Your task to perform on an android device: Add "acer nitro" to the cart on target Image 0: 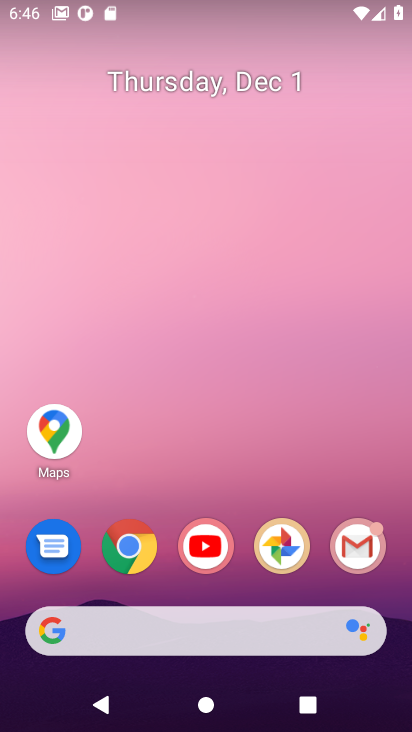
Step 0: click (137, 551)
Your task to perform on an android device: Add "acer nitro" to the cart on target Image 1: 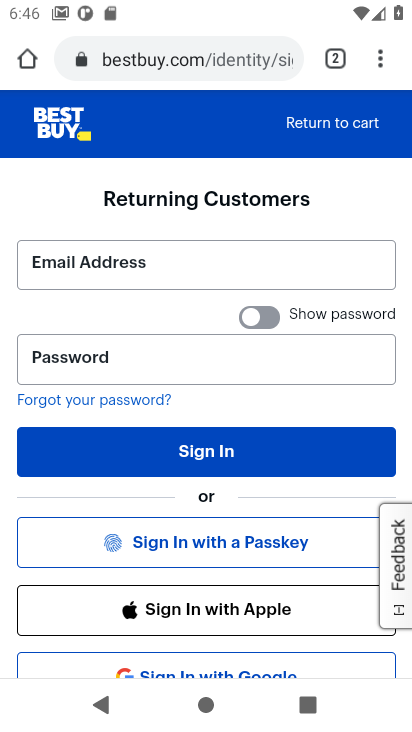
Step 1: click (194, 75)
Your task to perform on an android device: Add "acer nitro" to the cart on target Image 2: 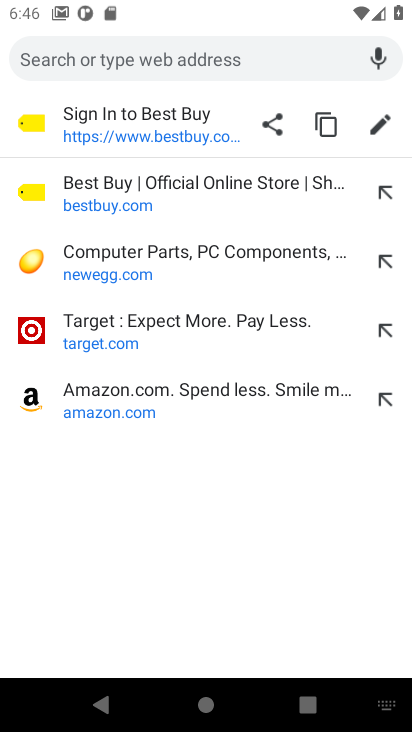
Step 2: click (88, 324)
Your task to perform on an android device: Add "acer nitro" to the cart on target Image 3: 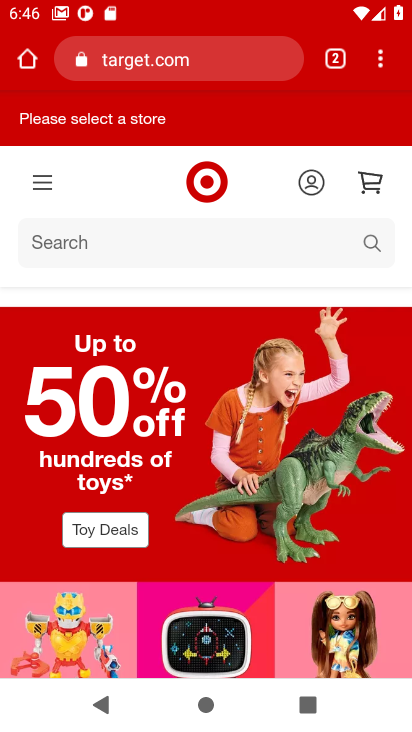
Step 3: click (51, 242)
Your task to perform on an android device: Add "acer nitro" to the cart on target Image 4: 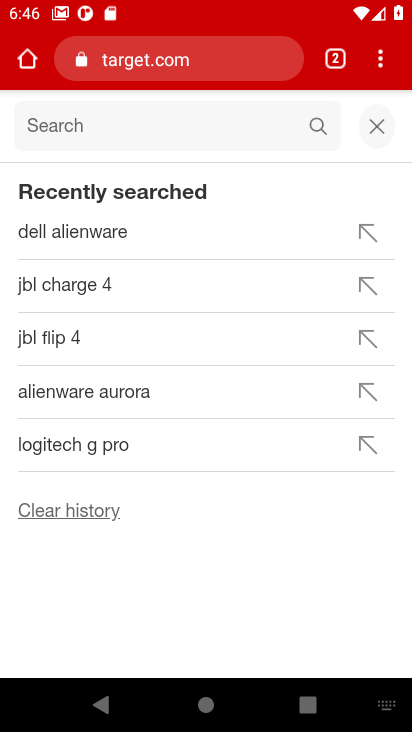
Step 4: type "acer nitro"
Your task to perform on an android device: Add "acer nitro" to the cart on target Image 5: 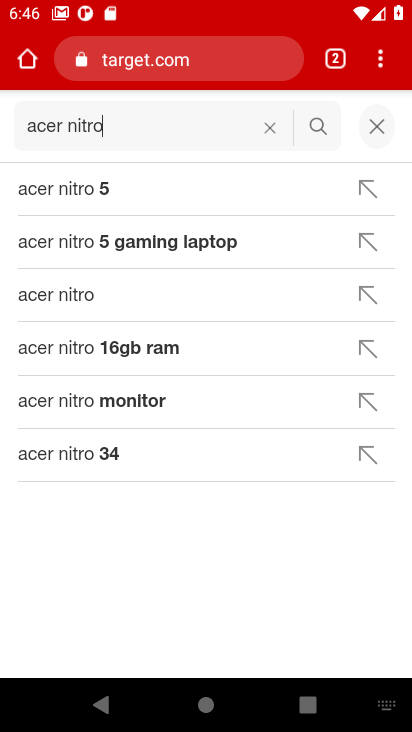
Step 5: click (49, 299)
Your task to perform on an android device: Add "acer nitro" to the cart on target Image 6: 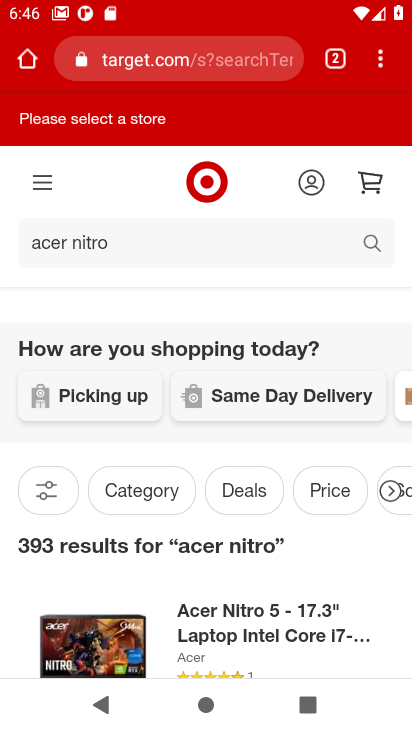
Step 6: drag from (307, 584) to (273, 330)
Your task to perform on an android device: Add "acer nitro" to the cart on target Image 7: 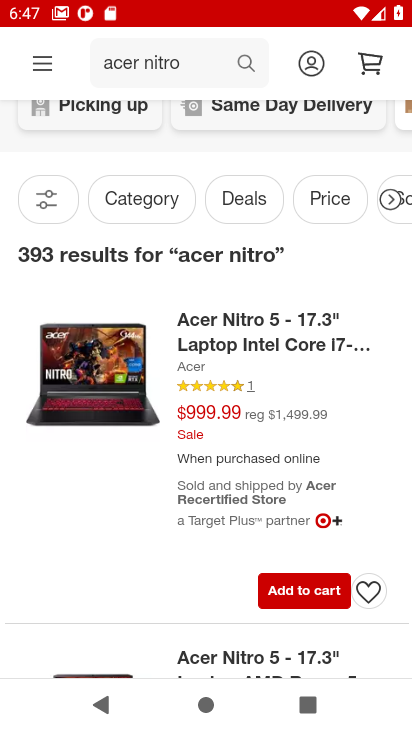
Step 7: click (293, 587)
Your task to perform on an android device: Add "acer nitro" to the cart on target Image 8: 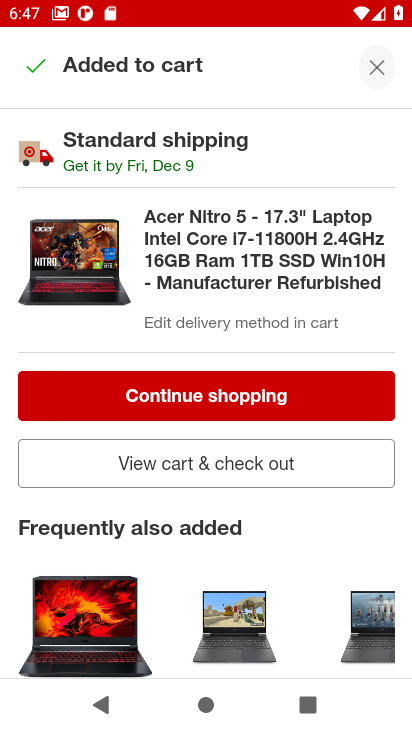
Step 8: task complete